Your task to perform on an android device: set the stopwatch Image 0: 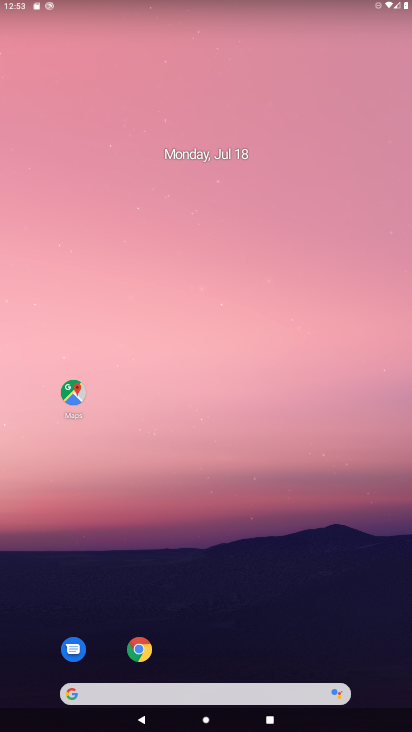
Step 0: drag from (29, 692) to (187, 237)
Your task to perform on an android device: set the stopwatch Image 1: 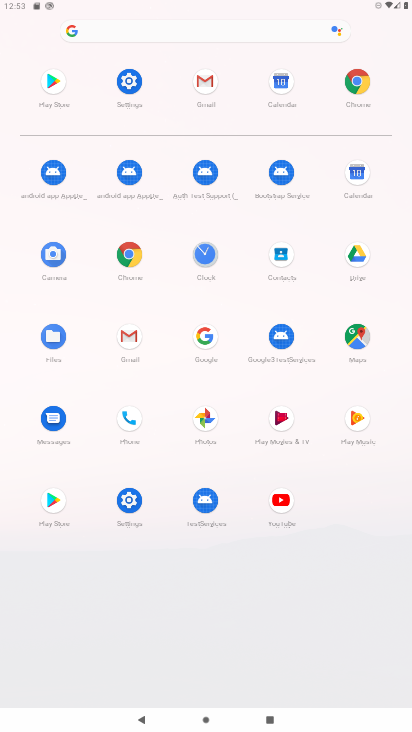
Step 1: click (201, 256)
Your task to perform on an android device: set the stopwatch Image 2: 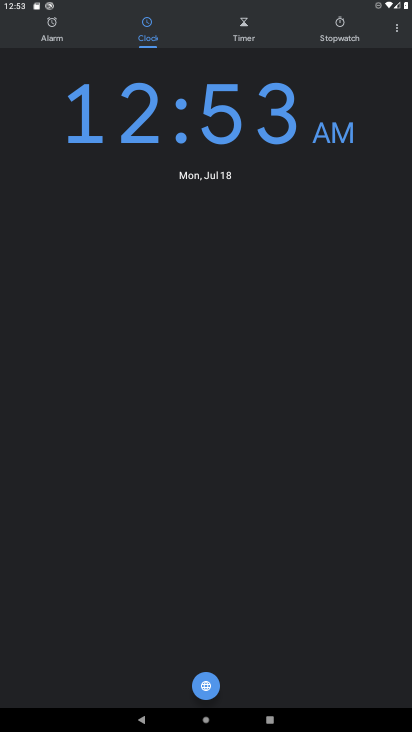
Step 2: click (338, 29)
Your task to perform on an android device: set the stopwatch Image 3: 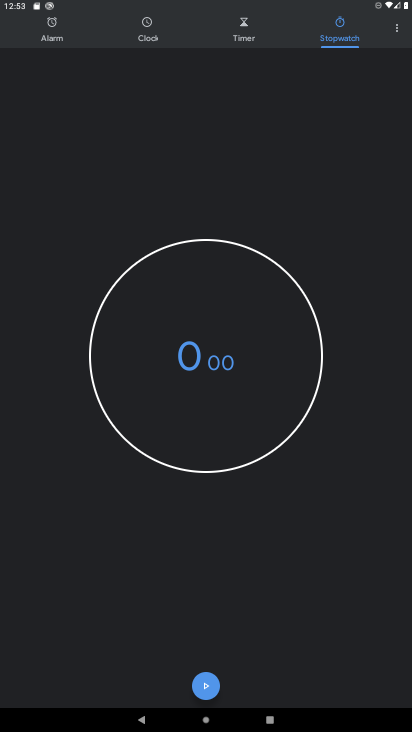
Step 3: click (209, 385)
Your task to perform on an android device: set the stopwatch Image 4: 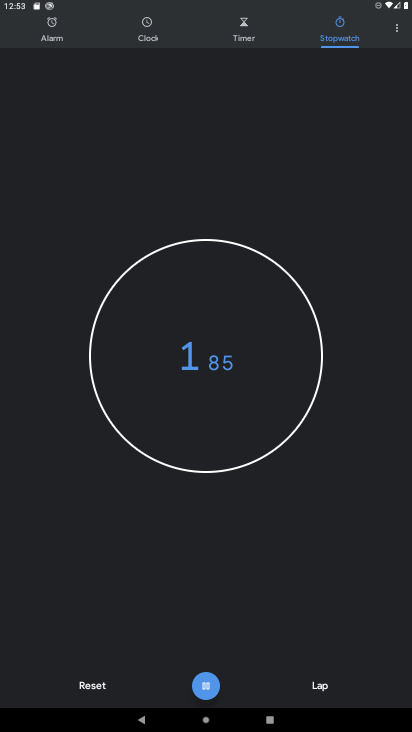
Step 4: click (203, 693)
Your task to perform on an android device: set the stopwatch Image 5: 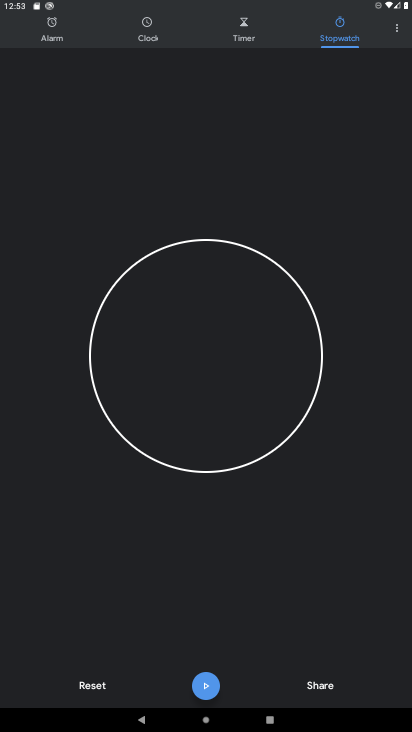
Step 5: task complete